Your task to perform on an android device: Go to network settings Image 0: 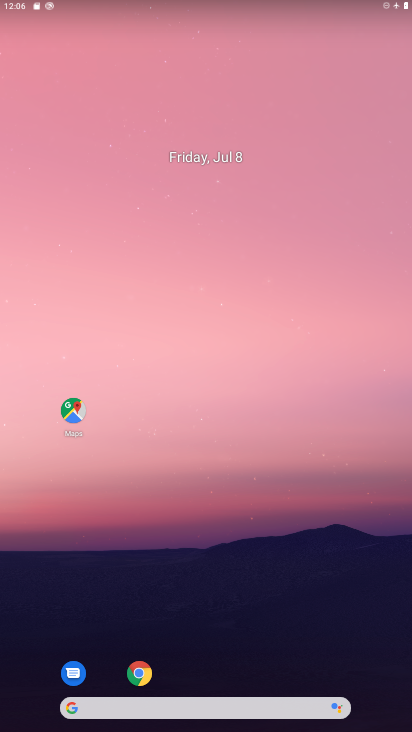
Step 0: drag from (257, 568) to (270, 255)
Your task to perform on an android device: Go to network settings Image 1: 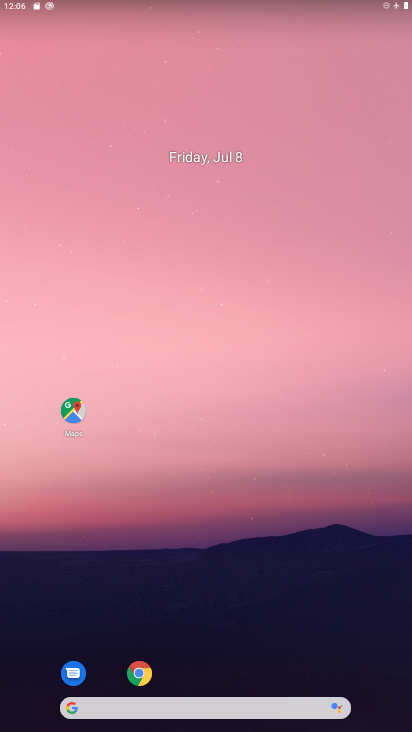
Step 1: drag from (266, 548) to (315, 234)
Your task to perform on an android device: Go to network settings Image 2: 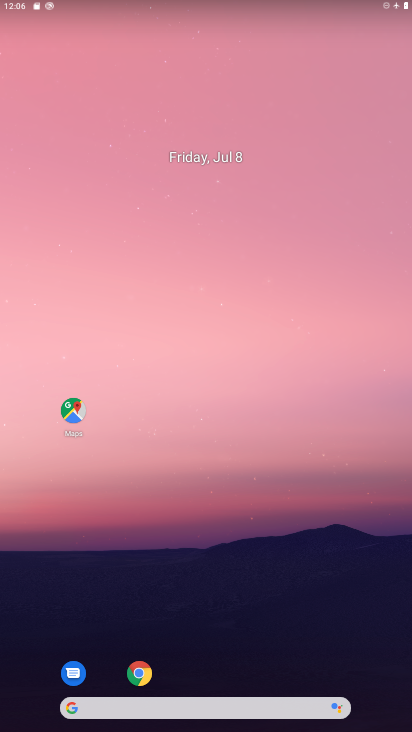
Step 2: drag from (263, 561) to (290, 283)
Your task to perform on an android device: Go to network settings Image 3: 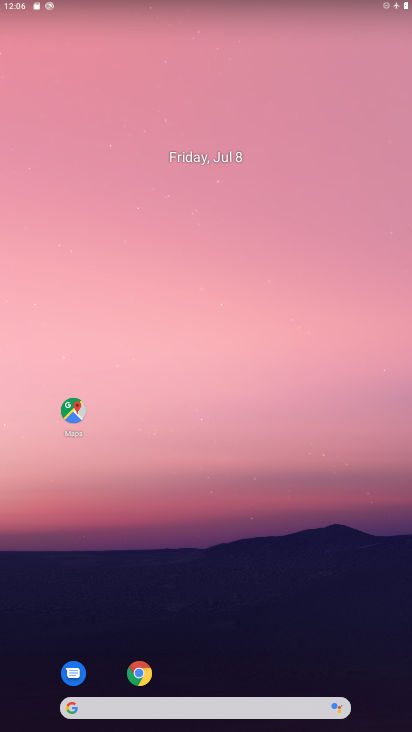
Step 3: drag from (261, 593) to (257, 114)
Your task to perform on an android device: Go to network settings Image 4: 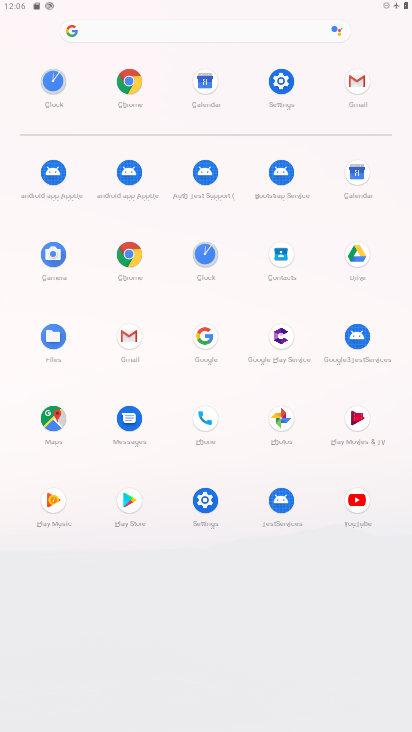
Step 4: click (277, 81)
Your task to perform on an android device: Go to network settings Image 5: 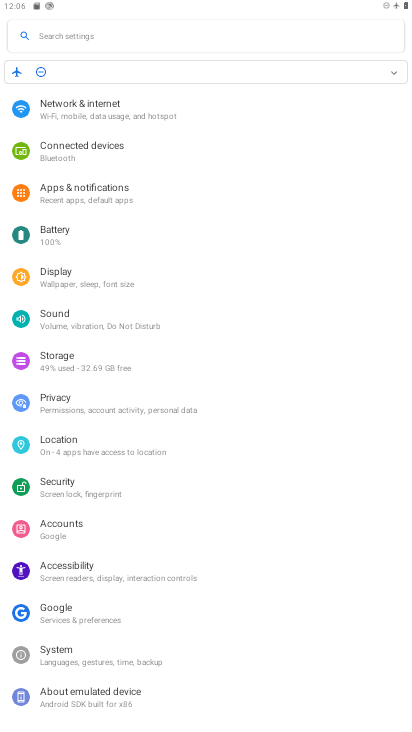
Step 5: click (101, 149)
Your task to perform on an android device: Go to network settings Image 6: 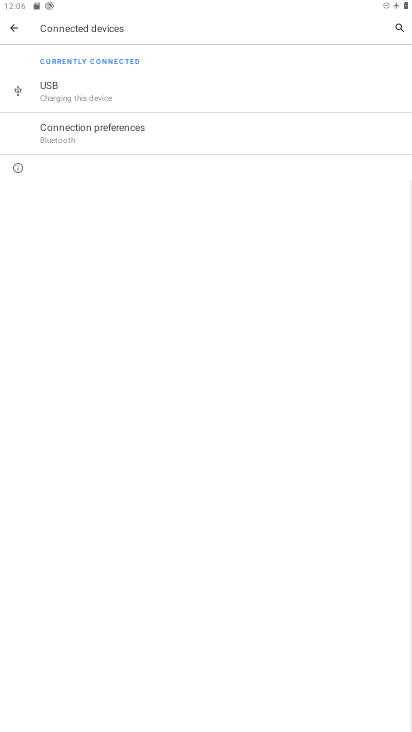
Step 6: task complete